Your task to perform on an android device: When is my next appointment? Image 0: 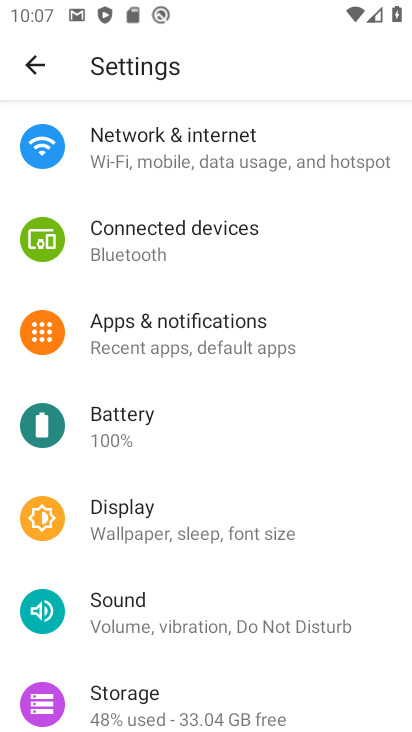
Step 0: drag from (288, 574) to (232, 266)
Your task to perform on an android device: When is my next appointment? Image 1: 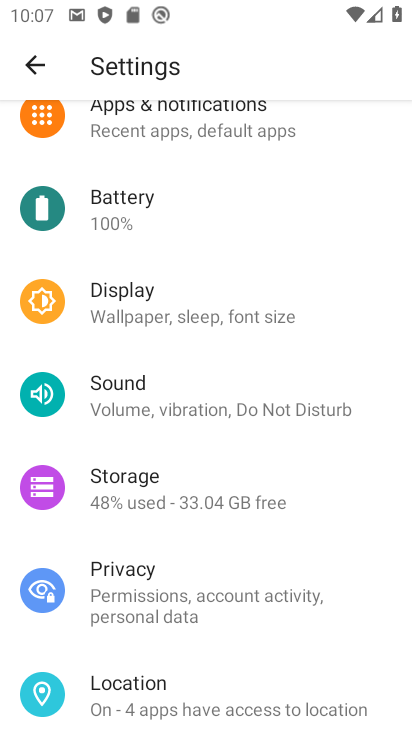
Step 1: drag from (241, 266) to (202, 263)
Your task to perform on an android device: When is my next appointment? Image 2: 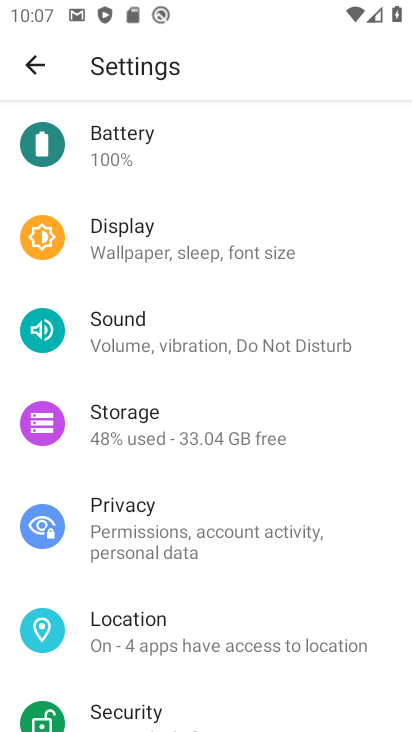
Step 2: press home button
Your task to perform on an android device: When is my next appointment? Image 3: 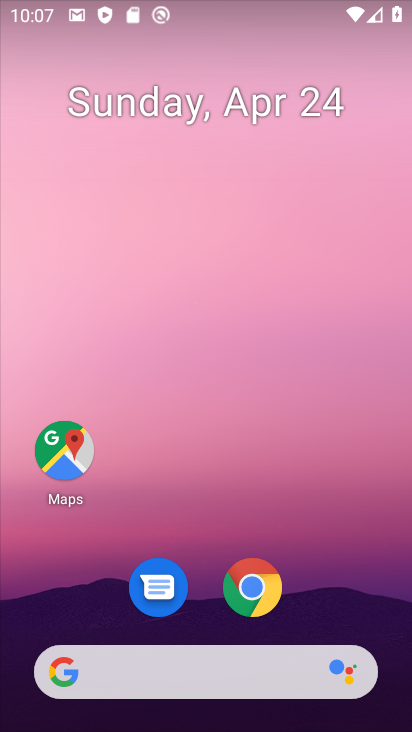
Step 3: drag from (345, 594) to (252, 6)
Your task to perform on an android device: When is my next appointment? Image 4: 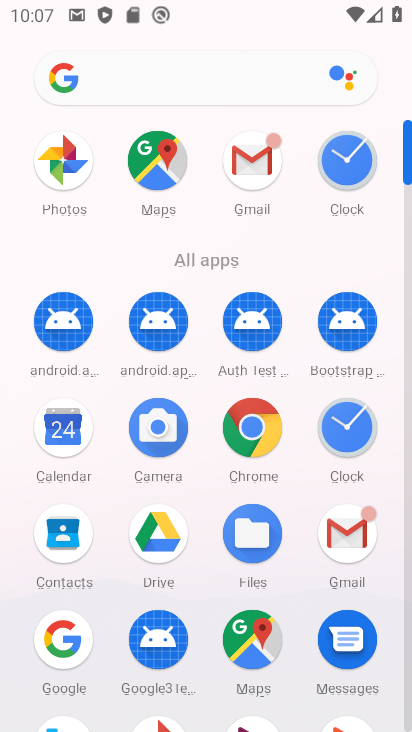
Step 4: click (75, 434)
Your task to perform on an android device: When is my next appointment? Image 5: 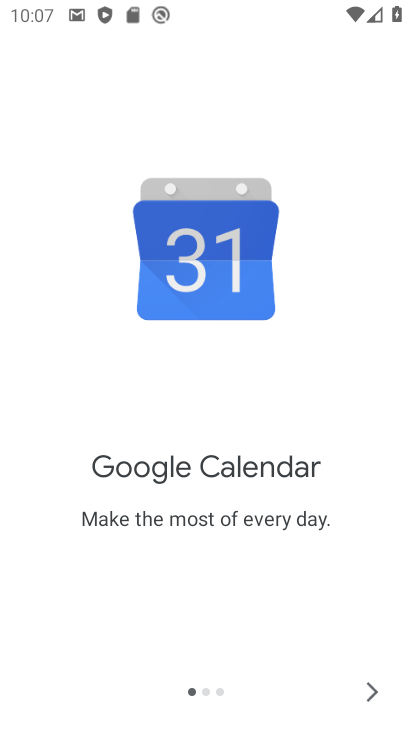
Step 5: click (379, 693)
Your task to perform on an android device: When is my next appointment? Image 6: 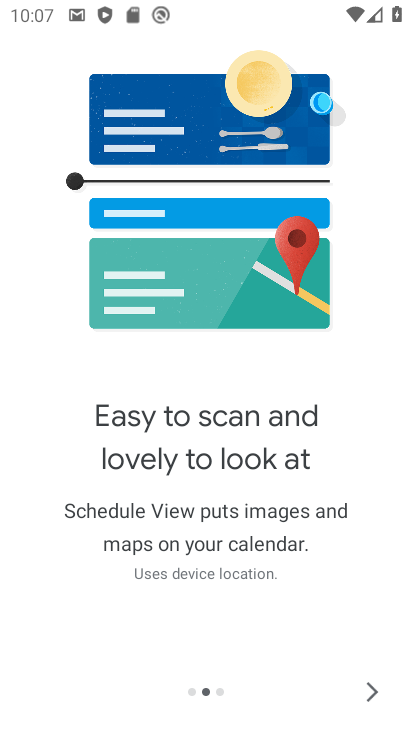
Step 6: click (378, 689)
Your task to perform on an android device: When is my next appointment? Image 7: 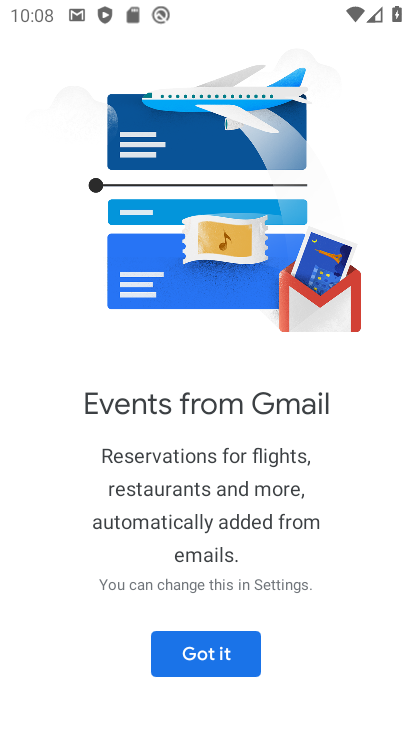
Step 7: click (185, 649)
Your task to perform on an android device: When is my next appointment? Image 8: 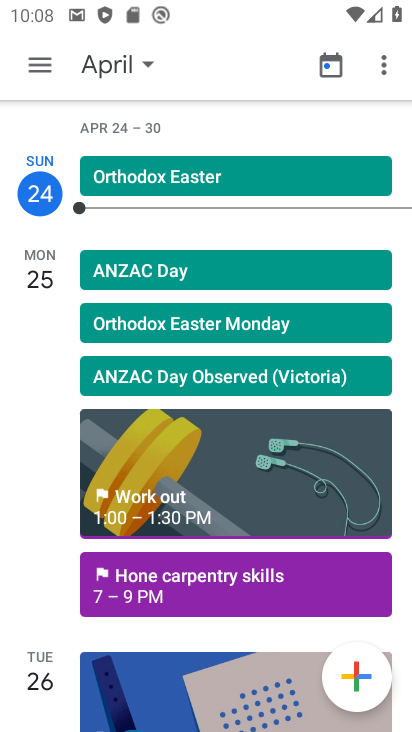
Step 8: drag from (236, 585) to (207, 90)
Your task to perform on an android device: When is my next appointment? Image 9: 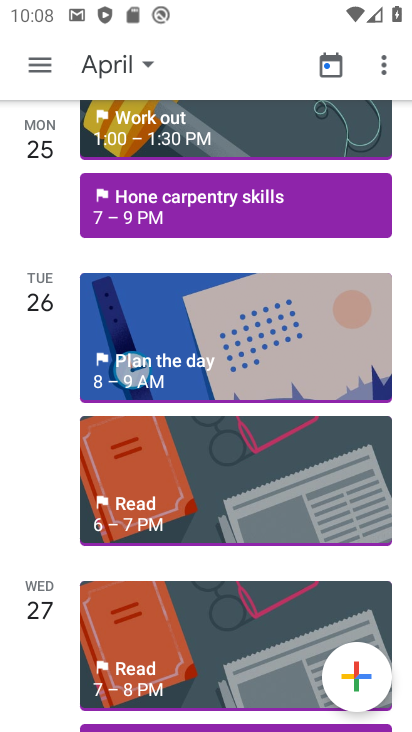
Step 9: drag from (233, 724) to (176, 289)
Your task to perform on an android device: When is my next appointment? Image 10: 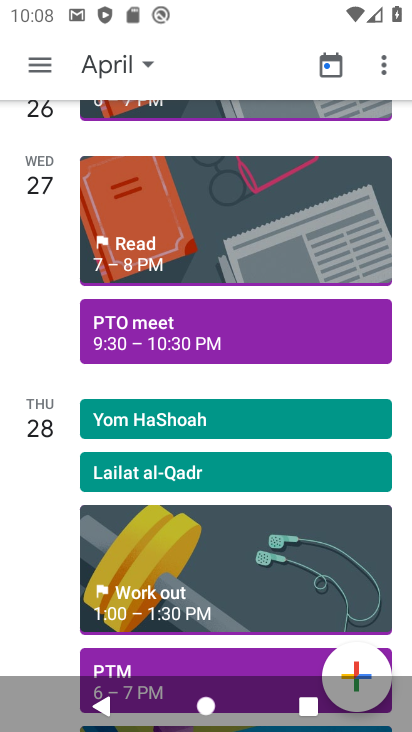
Step 10: click (166, 320)
Your task to perform on an android device: When is my next appointment? Image 11: 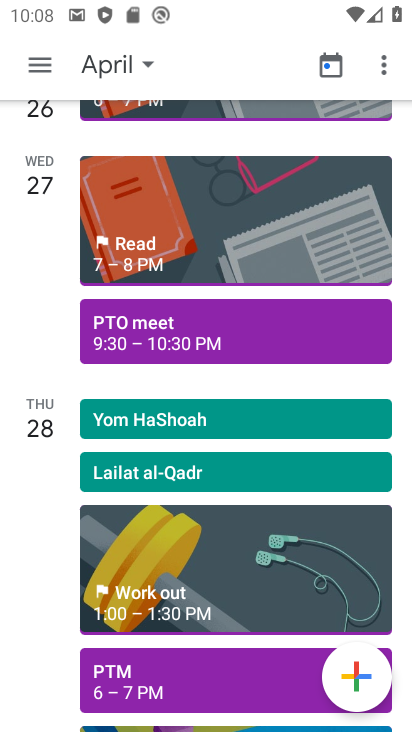
Step 11: click (162, 332)
Your task to perform on an android device: When is my next appointment? Image 12: 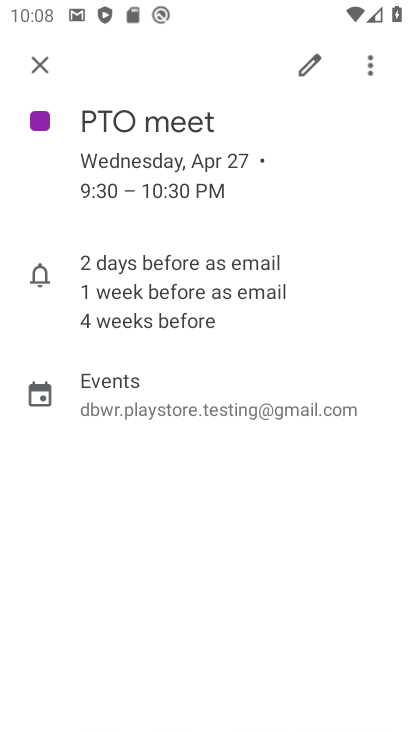
Step 12: task complete